Your task to perform on an android device: turn off priority inbox in the gmail app Image 0: 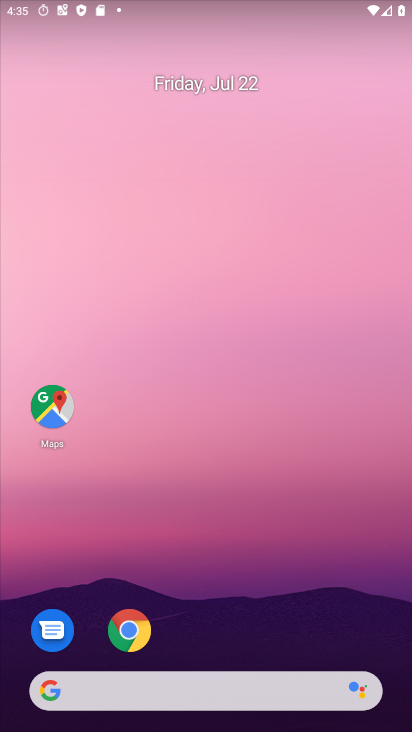
Step 0: drag from (207, 706) to (253, 0)
Your task to perform on an android device: turn off priority inbox in the gmail app Image 1: 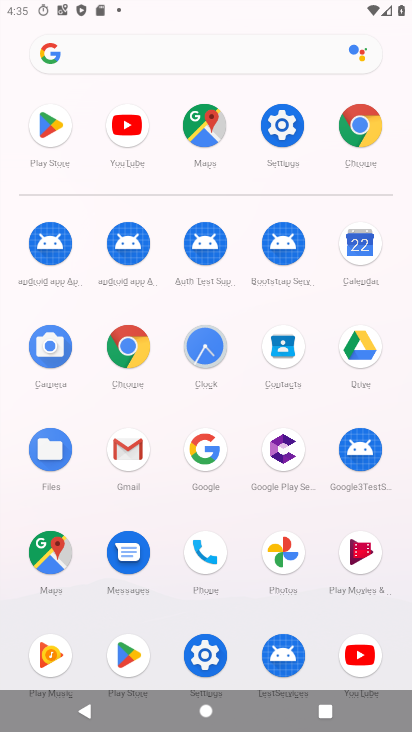
Step 1: click (123, 446)
Your task to perform on an android device: turn off priority inbox in the gmail app Image 2: 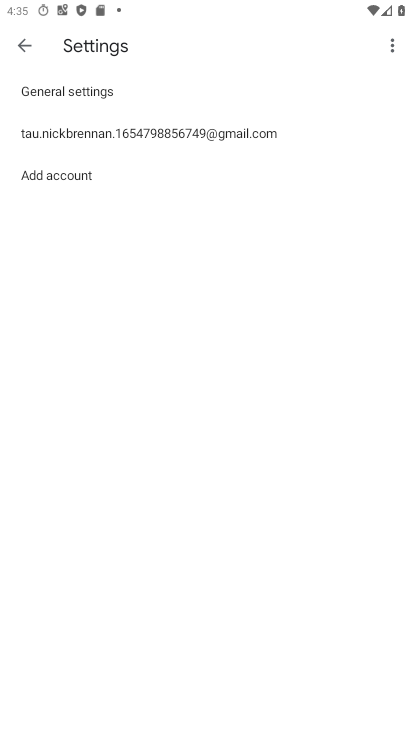
Step 2: click (93, 141)
Your task to perform on an android device: turn off priority inbox in the gmail app Image 3: 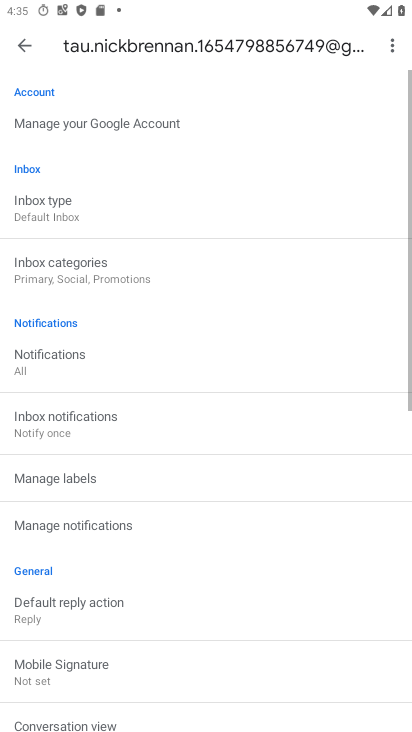
Step 3: click (77, 227)
Your task to perform on an android device: turn off priority inbox in the gmail app Image 4: 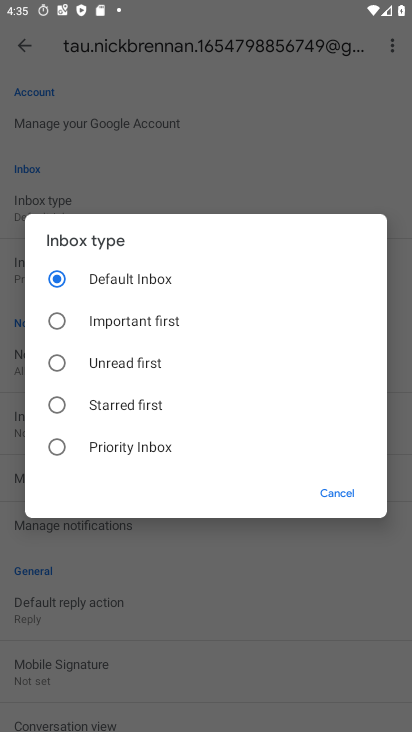
Step 4: task complete